Your task to perform on an android device: turn on javascript in the chrome app Image 0: 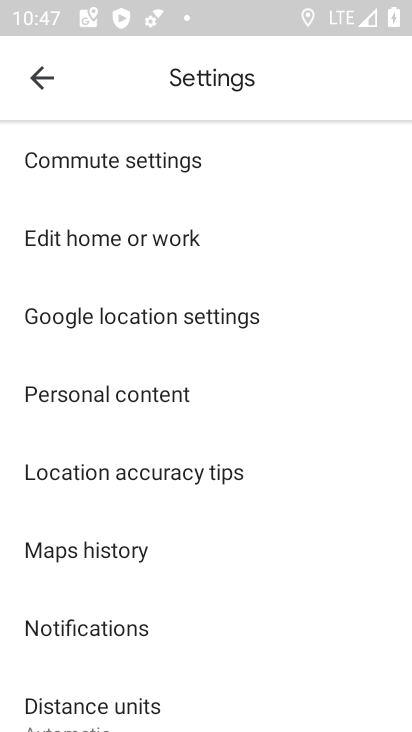
Step 0: press home button
Your task to perform on an android device: turn on javascript in the chrome app Image 1: 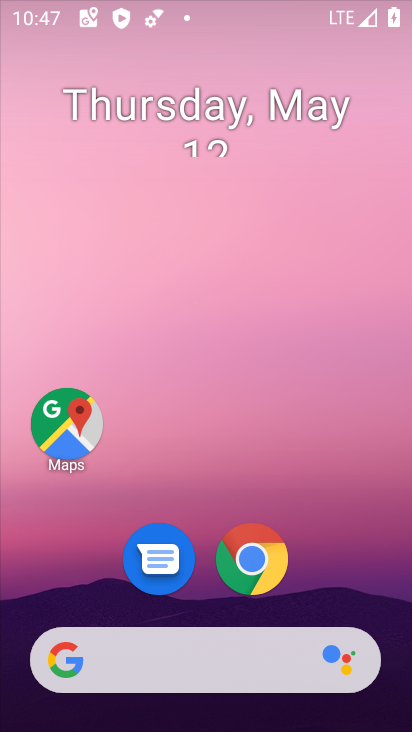
Step 1: click (273, 549)
Your task to perform on an android device: turn on javascript in the chrome app Image 2: 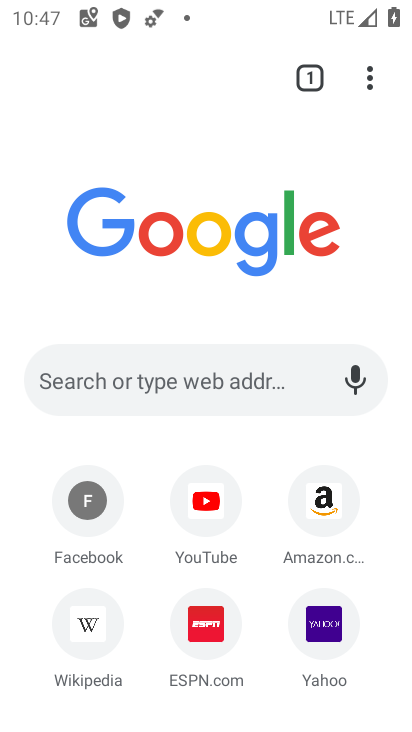
Step 2: click (367, 88)
Your task to perform on an android device: turn on javascript in the chrome app Image 3: 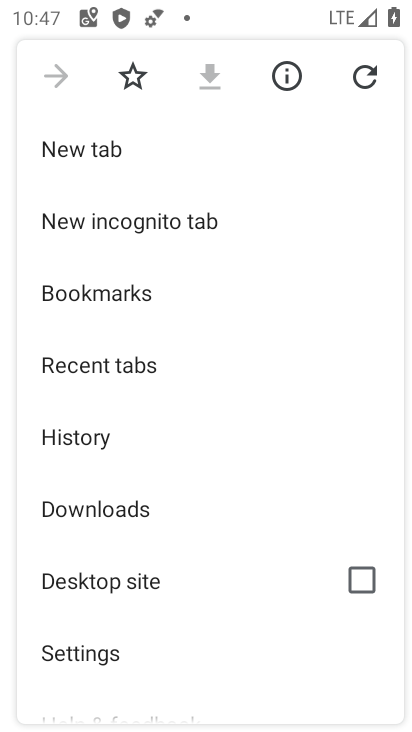
Step 3: drag from (176, 627) to (193, 323)
Your task to perform on an android device: turn on javascript in the chrome app Image 4: 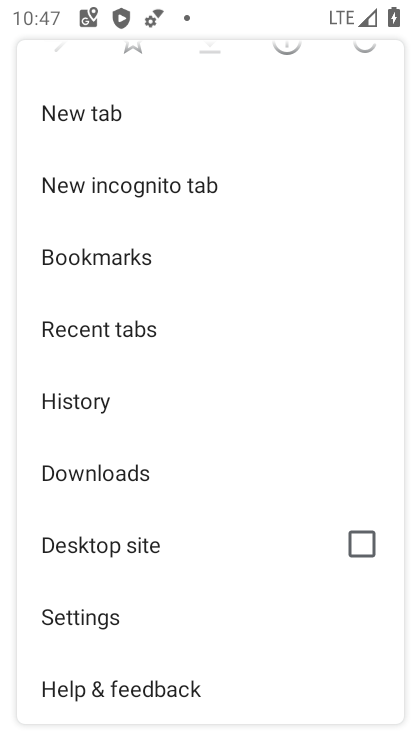
Step 4: click (112, 616)
Your task to perform on an android device: turn on javascript in the chrome app Image 5: 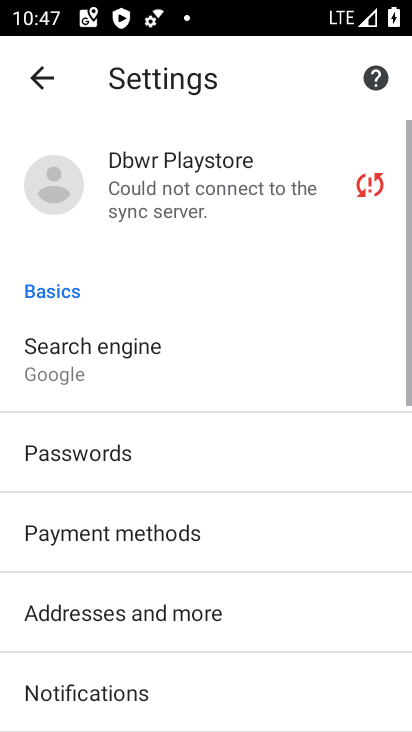
Step 5: drag from (124, 605) to (197, 280)
Your task to perform on an android device: turn on javascript in the chrome app Image 6: 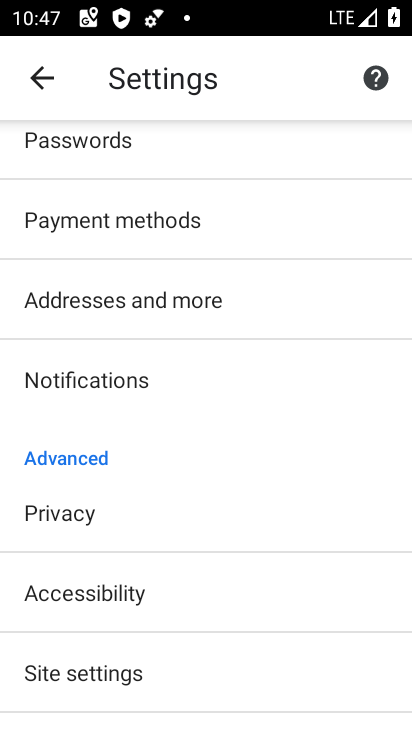
Step 6: click (161, 646)
Your task to perform on an android device: turn on javascript in the chrome app Image 7: 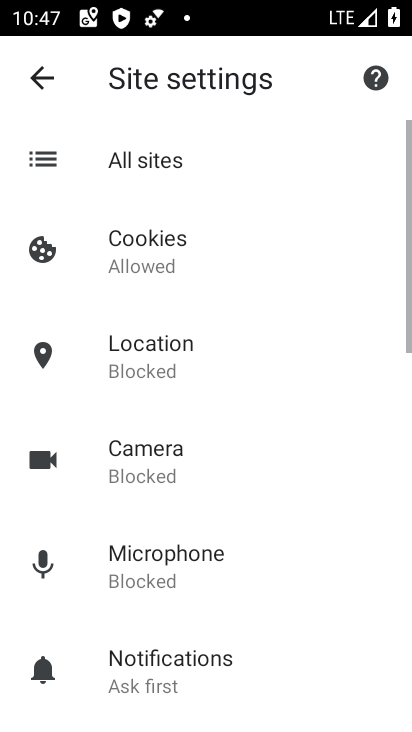
Step 7: drag from (174, 634) to (247, 350)
Your task to perform on an android device: turn on javascript in the chrome app Image 8: 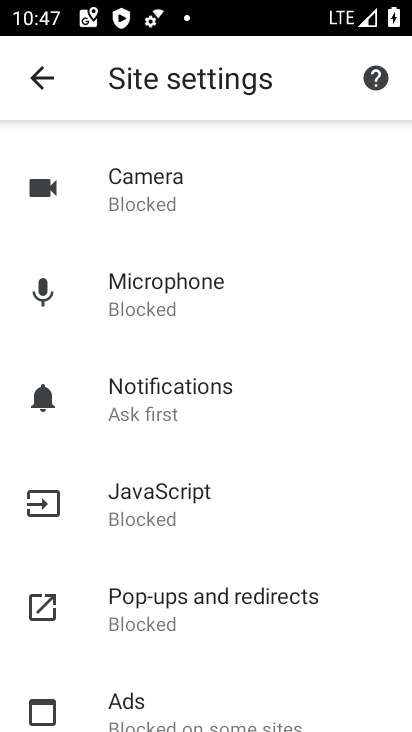
Step 8: click (157, 515)
Your task to perform on an android device: turn on javascript in the chrome app Image 9: 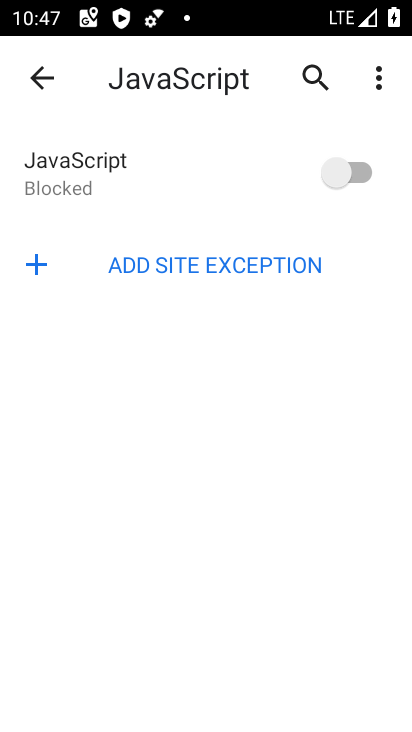
Step 9: click (363, 180)
Your task to perform on an android device: turn on javascript in the chrome app Image 10: 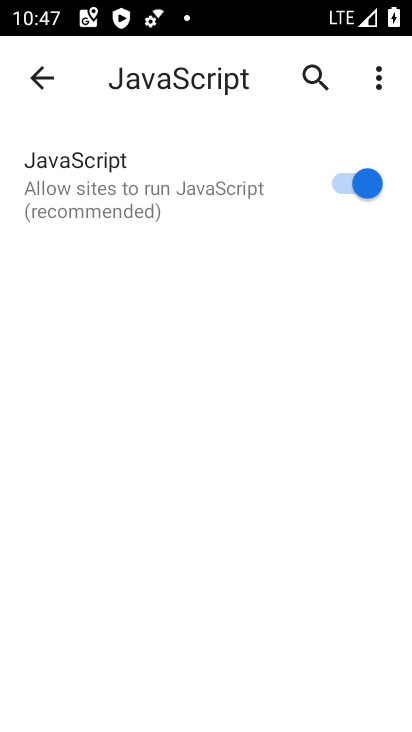
Step 10: task complete